Your task to perform on an android device: Go to Android settings Image 0: 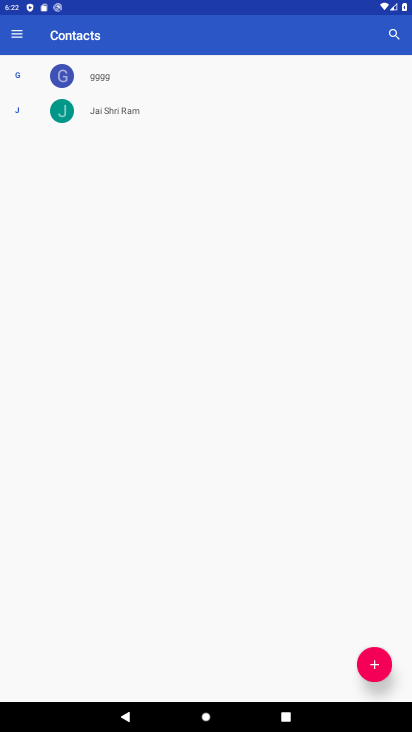
Step 0: press home button
Your task to perform on an android device: Go to Android settings Image 1: 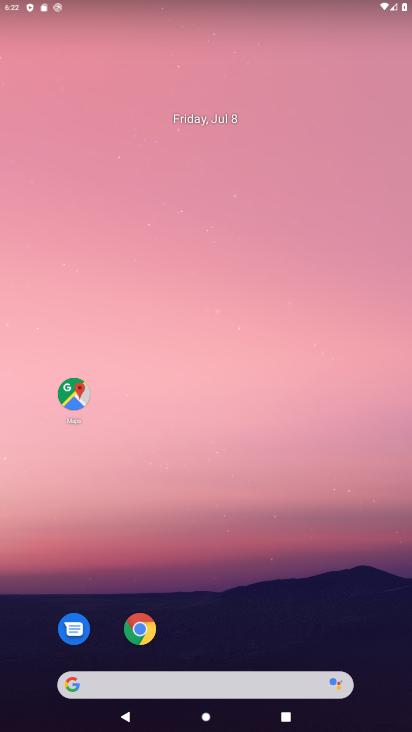
Step 1: drag from (269, 604) to (161, 74)
Your task to perform on an android device: Go to Android settings Image 2: 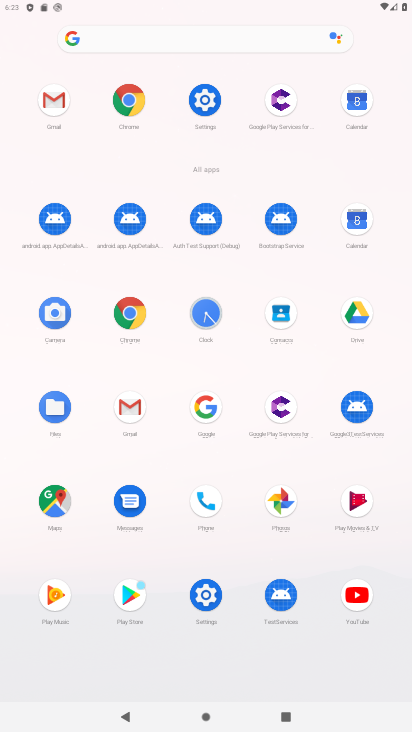
Step 2: click (201, 100)
Your task to perform on an android device: Go to Android settings Image 3: 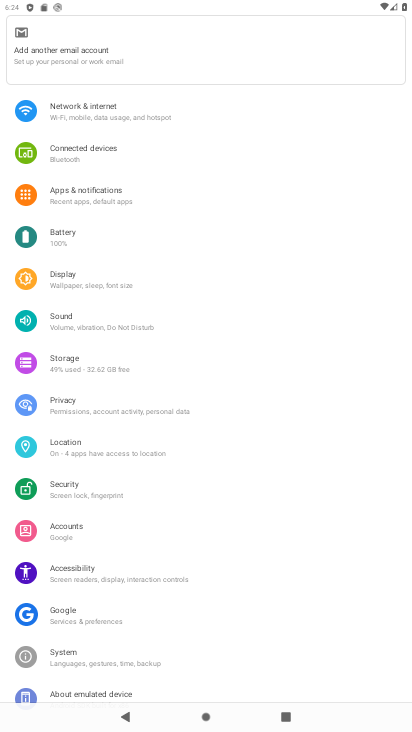
Step 3: drag from (143, 534) to (145, 42)
Your task to perform on an android device: Go to Android settings Image 4: 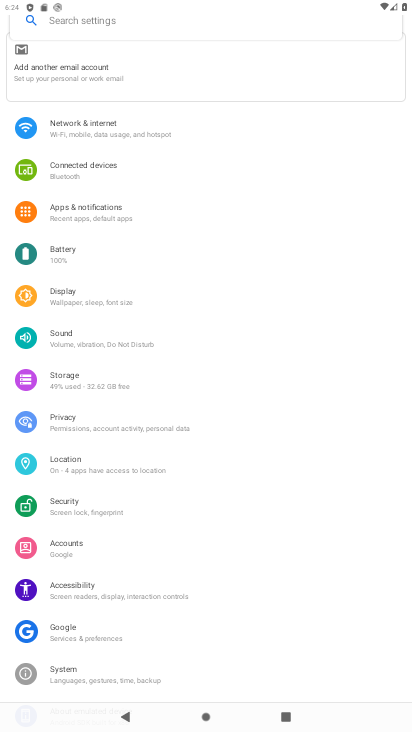
Step 4: drag from (109, 637) to (132, 428)
Your task to perform on an android device: Go to Android settings Image 5: 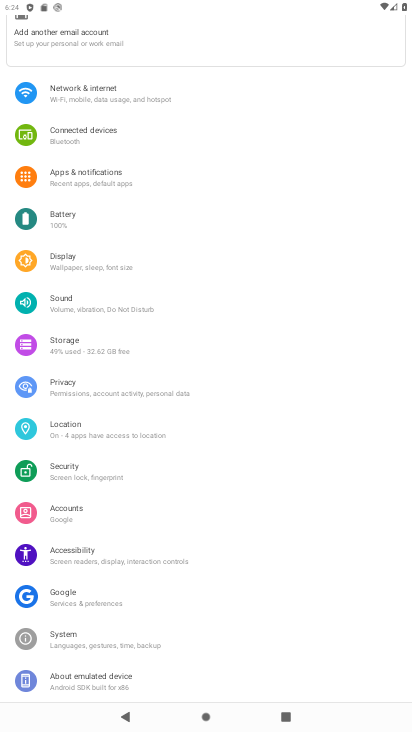
Step 5: click (151, 680)
Your task to perform on an android device: Go to Android settings Image 6: 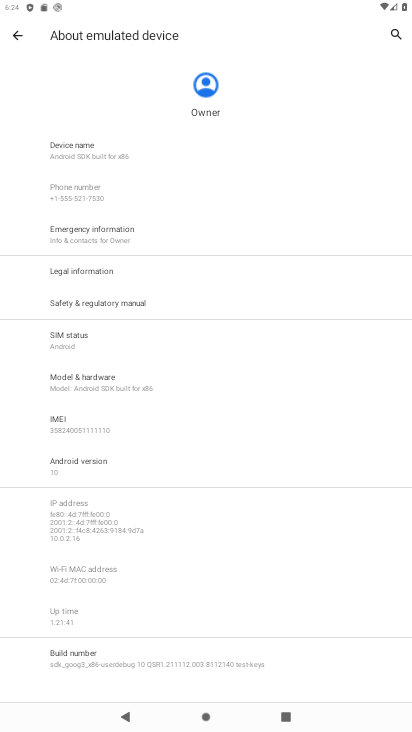
Step 6: click (95, 469)
Your task to perform on an android device: Go to Android settings Image 7: 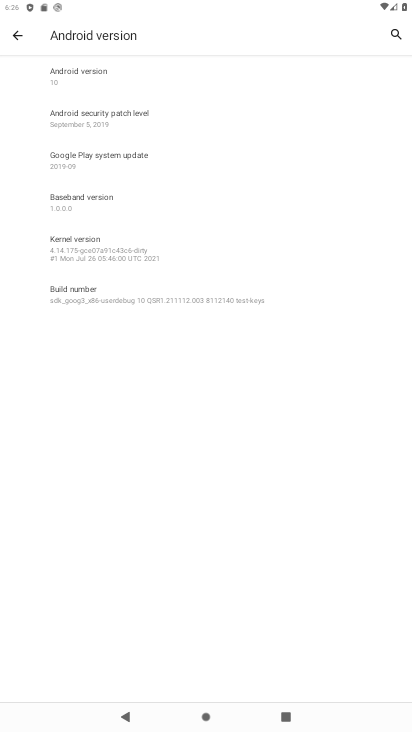
Step 7: task complete